Your task to perform on an android device: turn on improve location accuracy Image 0: 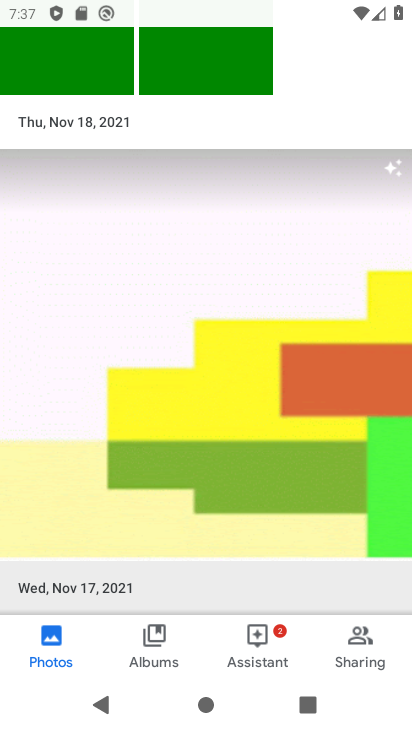
Step 0: press home button
Your task to perform on an android device: turn on improve location accuracy Image 1: 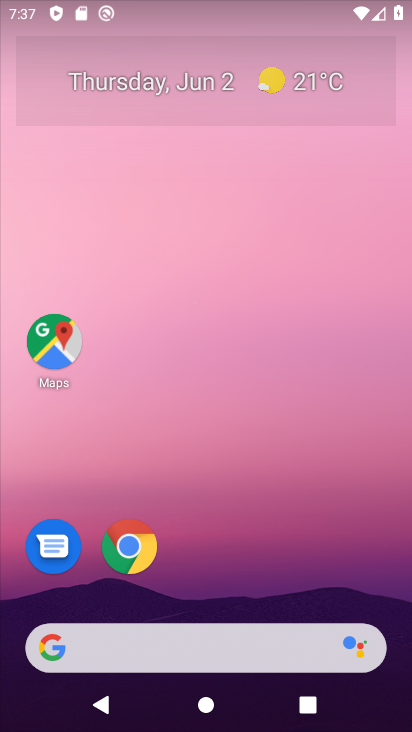
Step 1: drag from (322, 526) to (322, 188)
Your task to perform on an android device: turn on improve location accuracy Image 2: 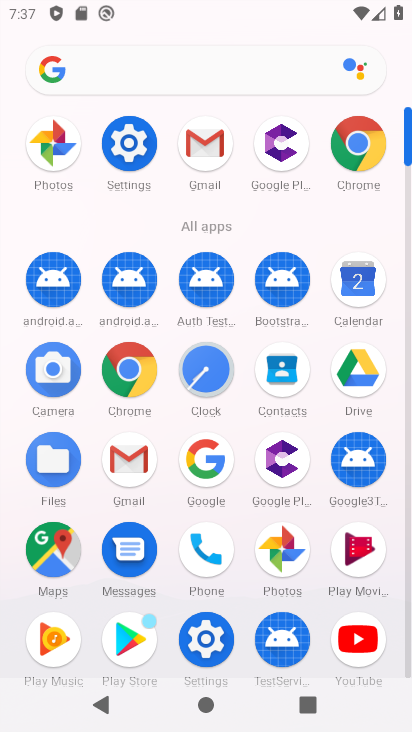
Step 2: click (114, 138)
Your task to perform on an android device: turn on improve location accuracy Image 3: 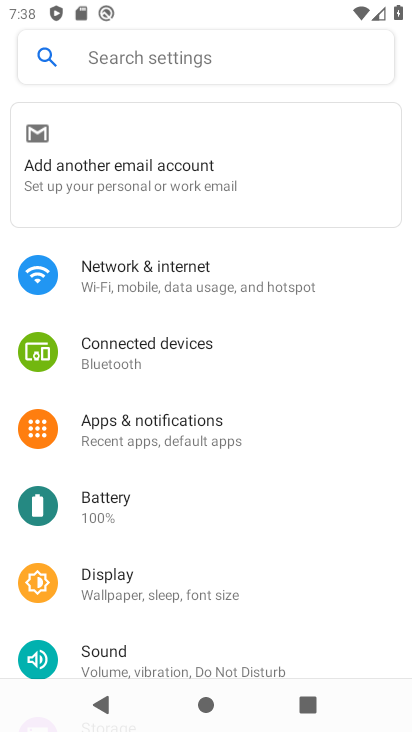
Step 3: drag from (274, 544) to (295, 307)
Your task to perform on an android device: turn on improve location accuracy Image 4: 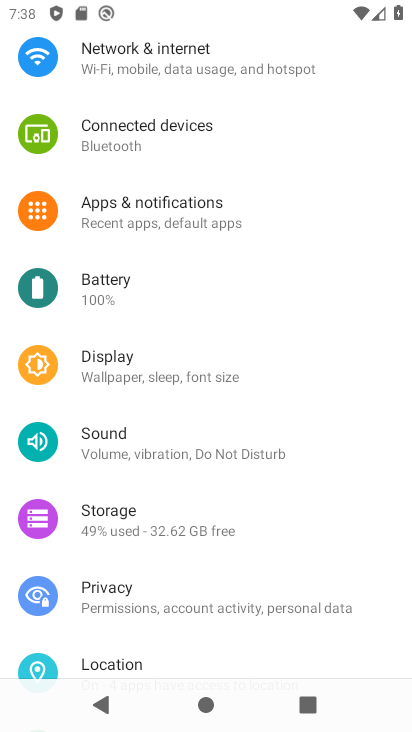
Step 4: drag from (203, 618) to (264, 429)
Your task to perform on an android device: turn on improve location accuracy Image 5: 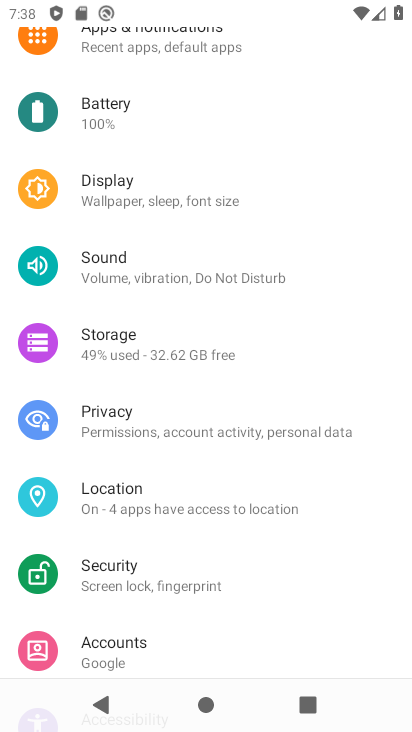
Step 5: click (175, 505)
Your task to perform on an android device: turn on improve location accuracy Image 6: 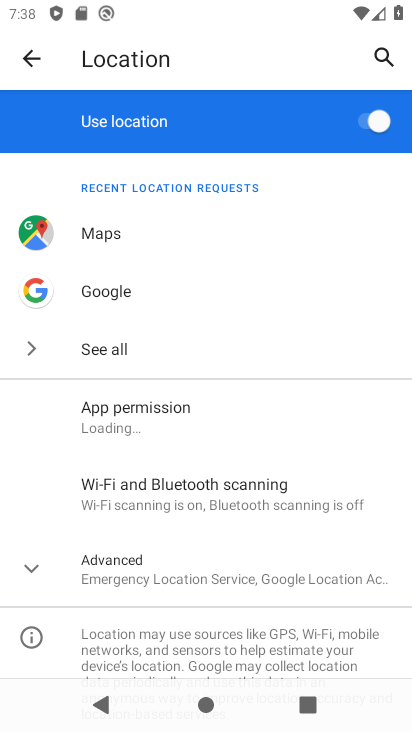
Step 6: click (175, 581)
Your task to perform on an android device: turn on improve location accuracy Image 7: 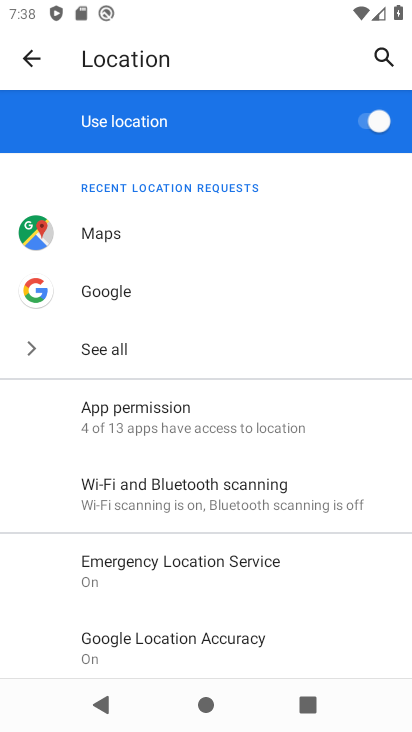
Step 7: drag from (208, 620) to (286, 355)
Your task to perform on an android device: turn on improve location accuracy Image 8: 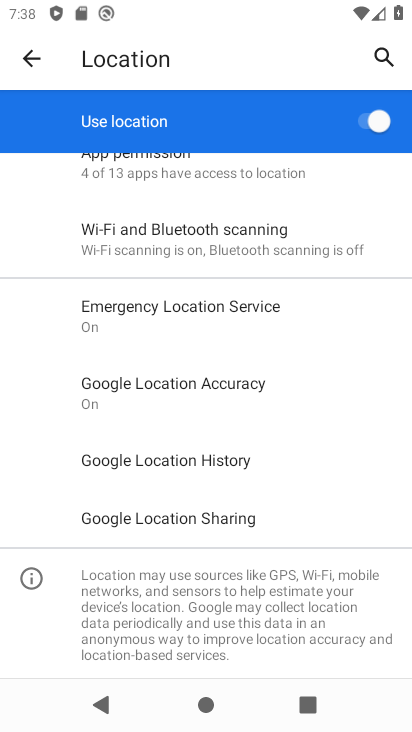
Step 8: click (222, 383)
Your task to perform on an android device: turn on improve location accuracy Image 9: 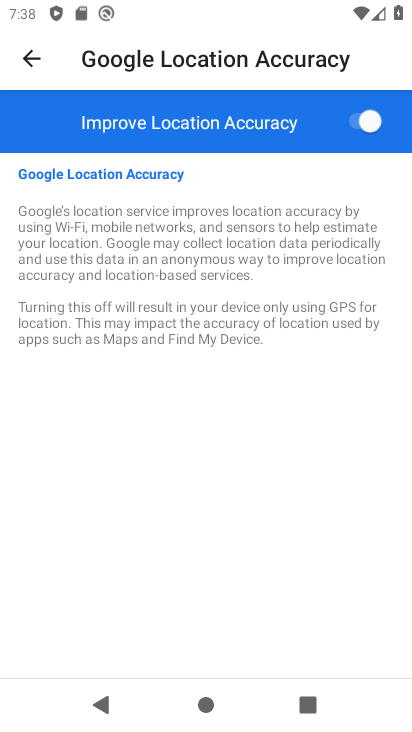
Step 9: task complete